Your task to perform on an android device: turn on airplane mode Image 0: 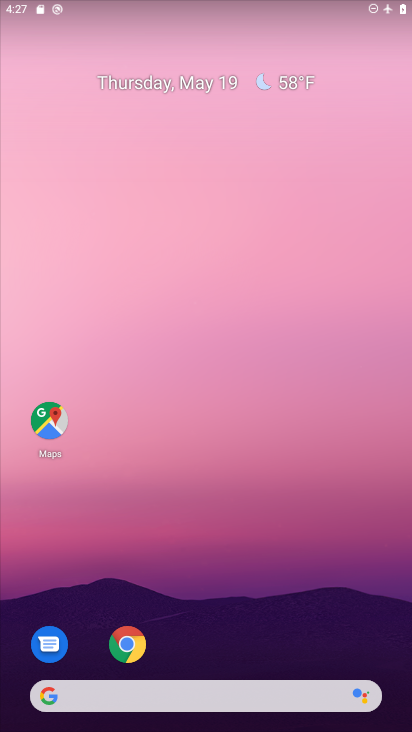
Step 0: drag from (277, 521) to (269, 34)
Your task to perform on an android device: turn on airplane mode Image 1: 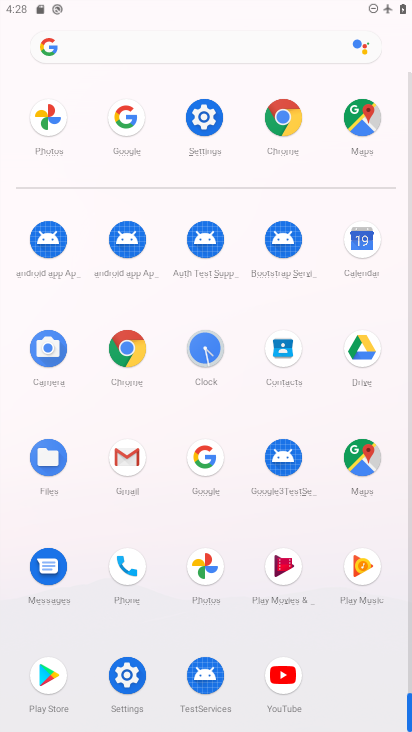
Step 1: drag from (7, 578) to (9, 205)
Your task to perform on an android device: turn on airplane mode Image 2: 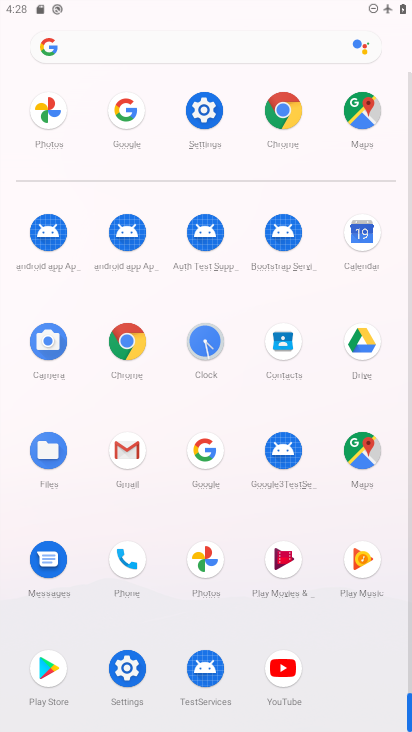
Step 2: click (201, 106)
Your task to perform on an android device: turn on airplane mode Image 3: 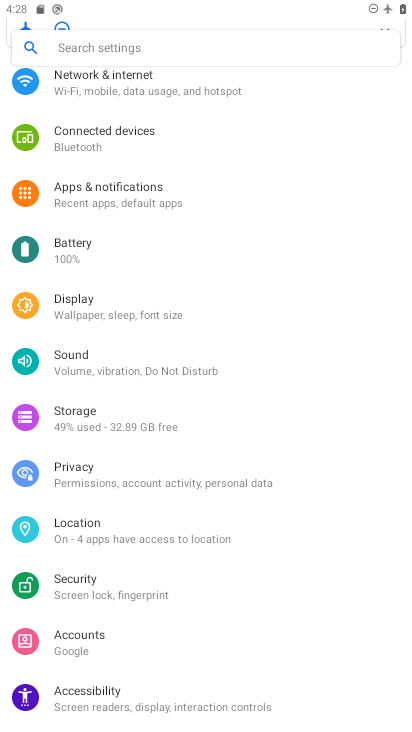
Step 3: drag from (210, 118) to (223, 528)
Your task to perform on an android device: turn on airplane mode Image 4: 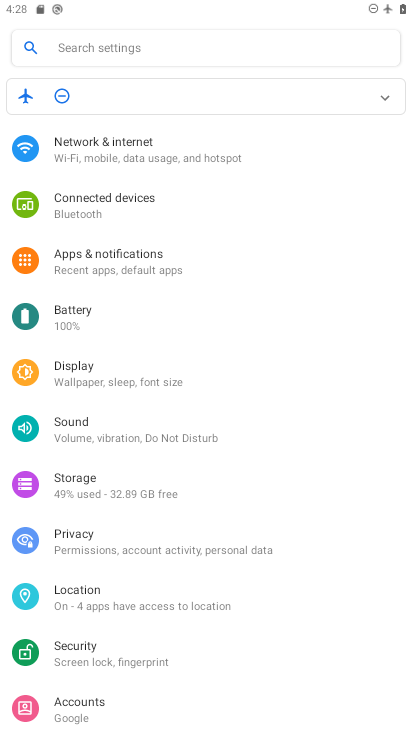
Step 4: click (164, 151)
Your task to perform on an android device: turn on airplane mode Image 5: 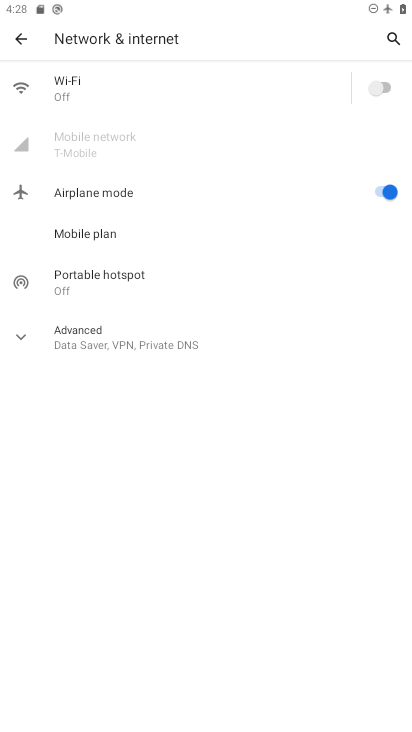
Step 5: click (40, 330)
Your task to perform on an android device: turn on airplane mode Image 6: 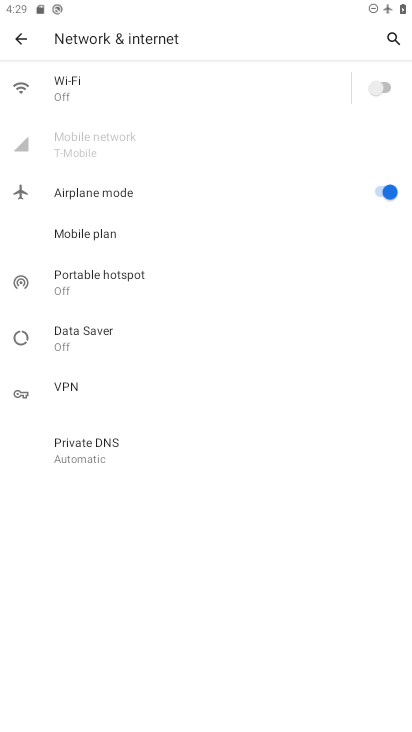
Step 6: task complete